Your task to perform on an android device: change notifications settings Image 0: 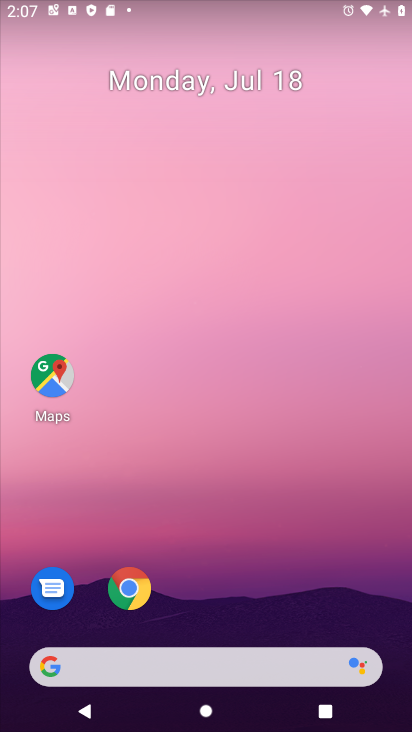
Step 0: drag from (242, 631) to (266, 179)
Your task to perform on an android device: change notifications settings Image 1: 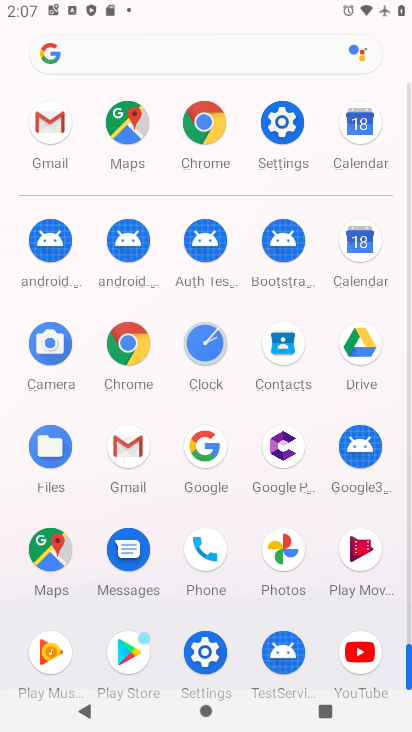
Step 1: click (278, 148)
Your task to perform on an android device: change notifications settings Image 2: 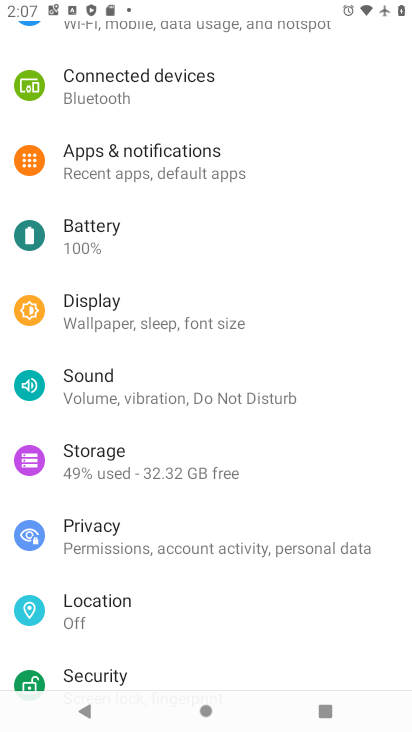
Step 2: click (210, 171)
Your task to perform on an android device: change notifications settings Image 3: 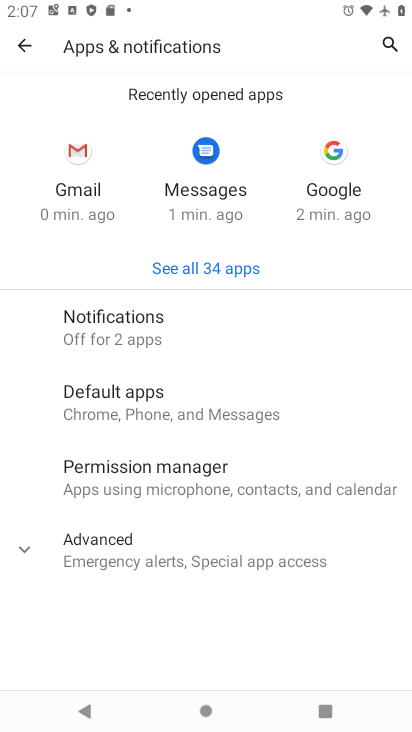
Step 3: click (160, 337)
Your task to perform on an android device: change notifications settings Image 4: 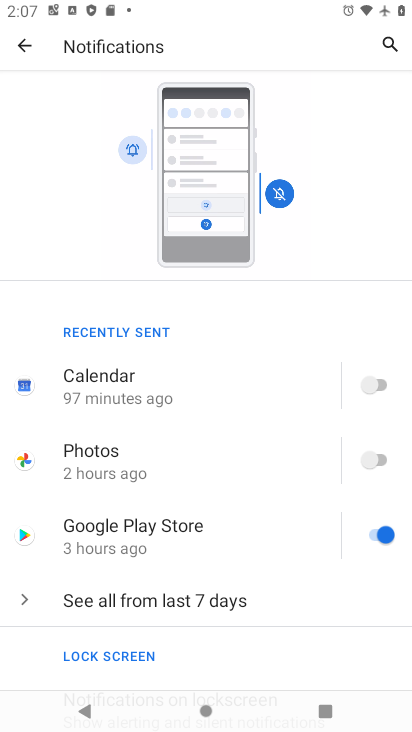
Step 4: click (383, 387)
Your task to perform on an android device: change notifications settings Image 5: 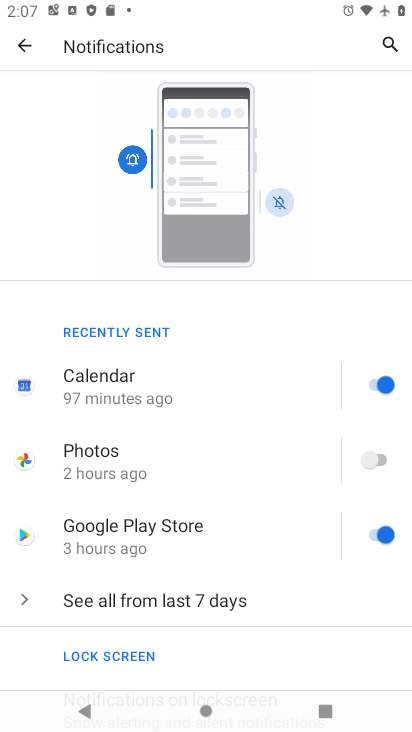
Step 5: task complete